Your task to perform on an android device: Show me the alarms in the clock app Image 0: 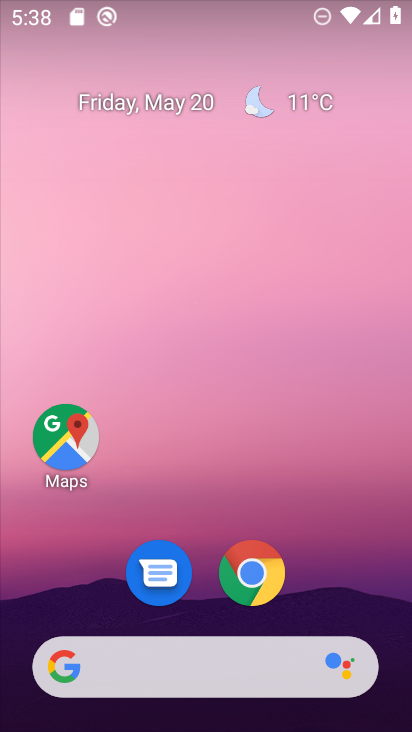
Step 0: drag from (258, 320) to (180, 49)
Your task to perform on an android device: Show me the alarms in the clock app Image 1: 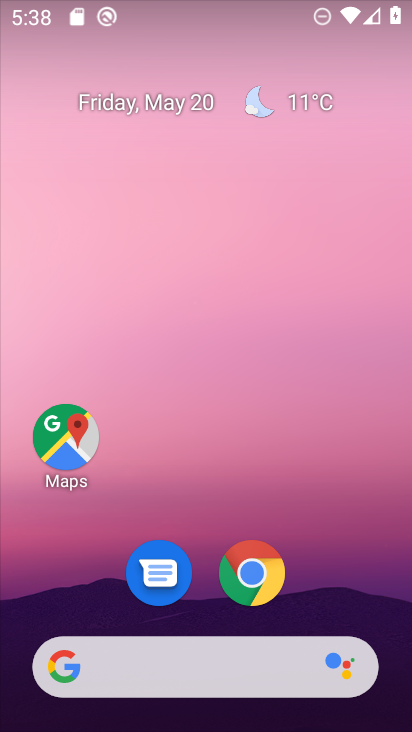
Step 1: drag from (347, 478) to (91, 1)
Your task to perform on an android device: Show me the alarms in the clock app Image 2: 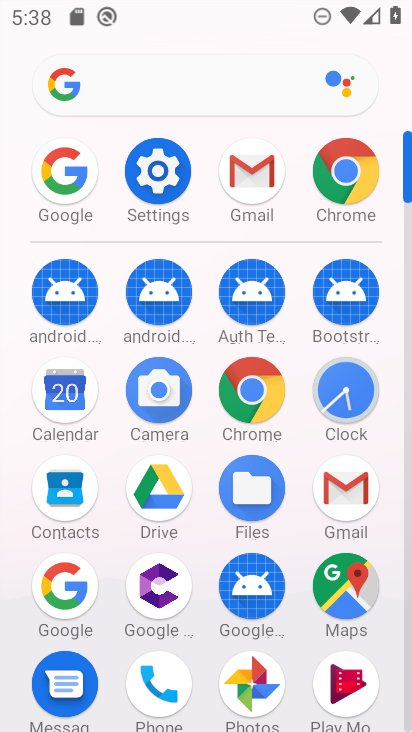
Step 2: click (338, 384)
Your task to perform on an android device: Show me the alarms in the clock app Image 3: 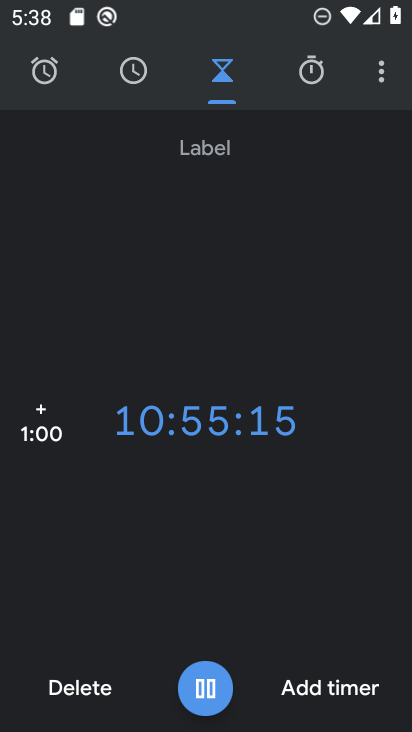
Step 3: click (41, 78)
Your task to perform on an android device: Show me the alarms in the clock app Image 4: 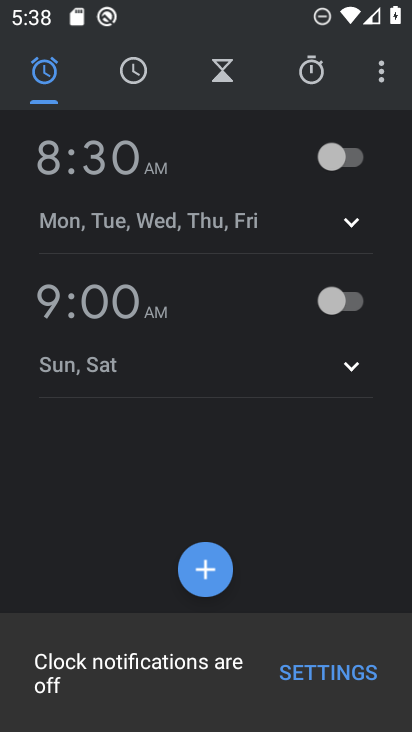
Step 4: task complete